Your task to perform on an android device: What's on my calendar today? Image 0: 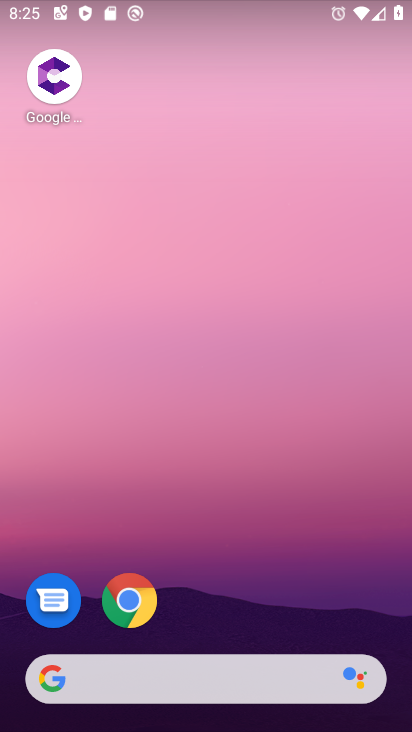
Step 0: drag from (195, 723) to (177, 115)
Your task to perform on an android device: What's on my calendar today? Image 1: 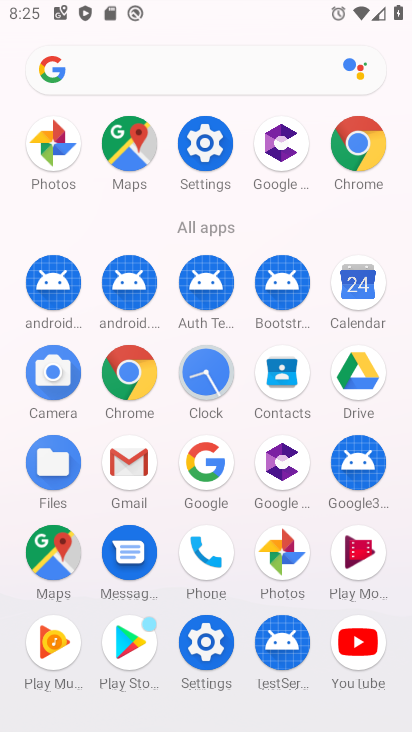
Step 1: click (364, 288)
Your task to perform on an android device: What's on my calendar today? Image 2: 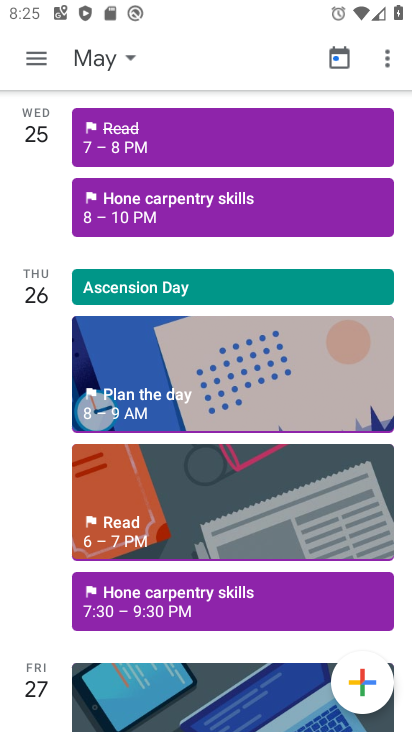
Step 2: click (41, 124)
Your task to perform on an android device: What's on my calendar today? Image 3: 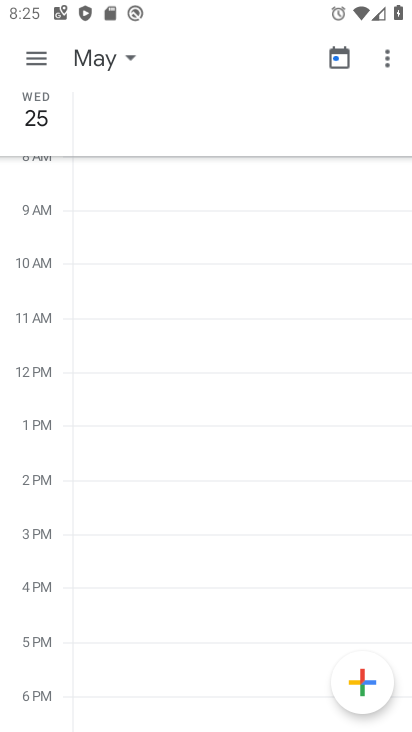
Step 3: task complete